Your task to perform on an android device: Show the shopping cart on newegg. Add "amazon basics triple a" to the cart on newegg, then select checkout. Image 0: 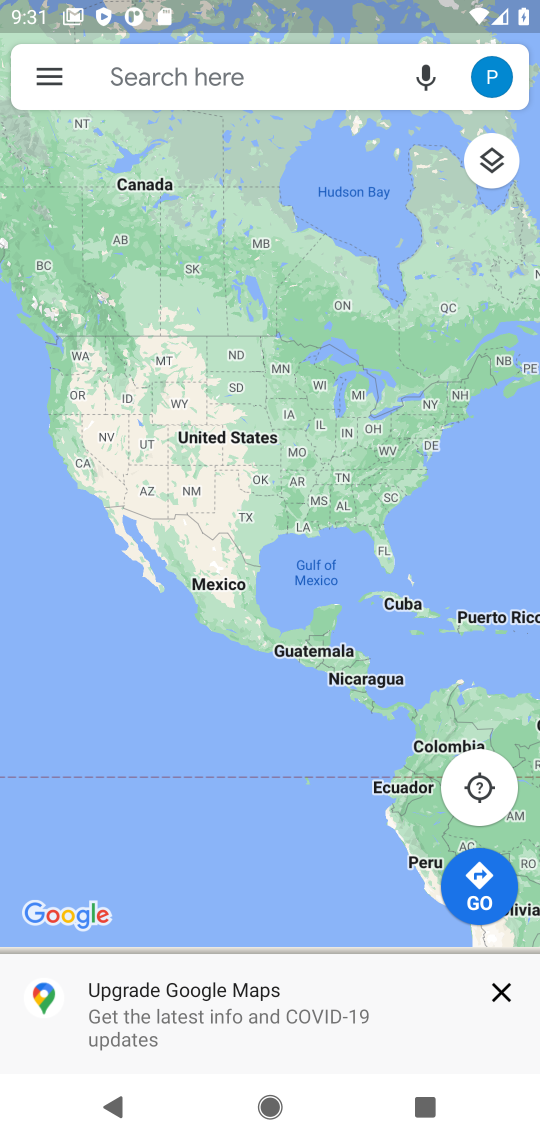
Step 0: press home button
Your task to perform on an android device: Show the shopping cart on newegg. Add "amazon basics triple a" to the cart on newegg, then select checkout. Image 1: 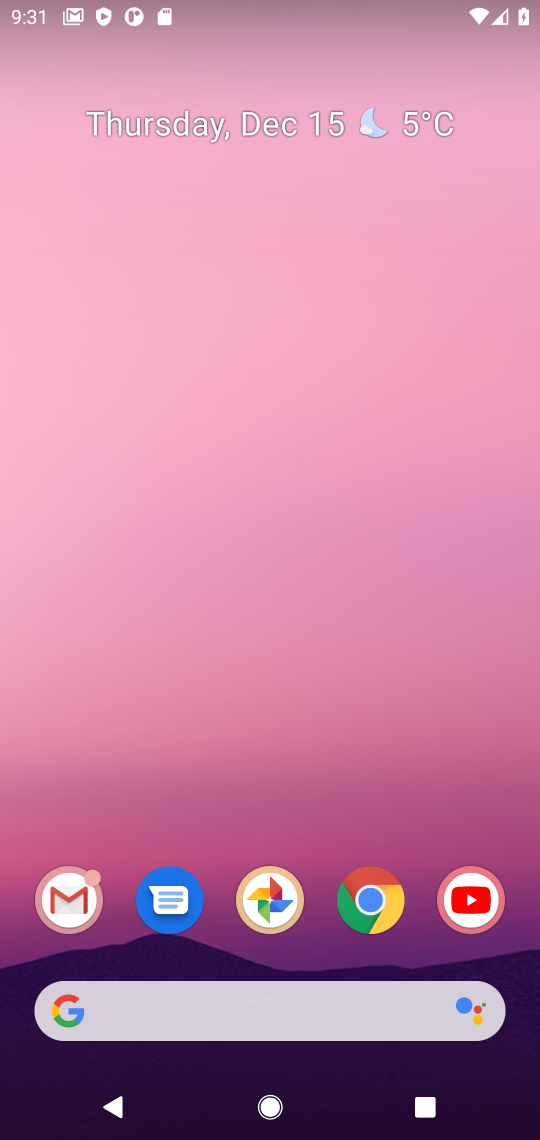
Step 1: click (368, 896)
Your task to perform on an android device: Show the shopping cart on newegg. Add "amazon basics triple a" to the cart on newegg, then select checkout. Image 2: 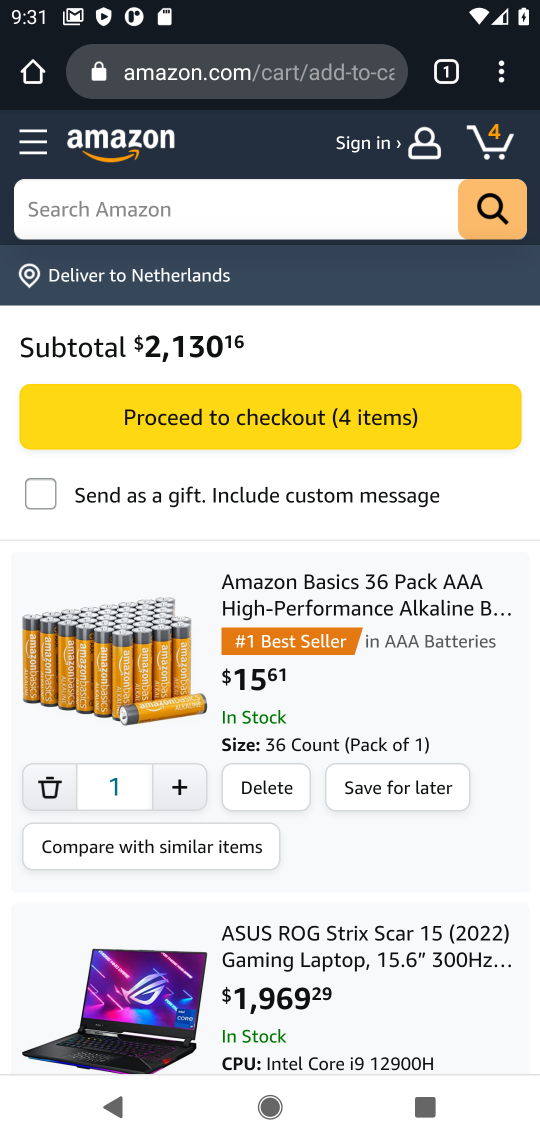
Step 2: click (281, 78)
Your task to perform on an android device: Show the shopping cart on newegg. Add "amazon basics triple a" to the cart on newegg, then select checkout. Image 3: 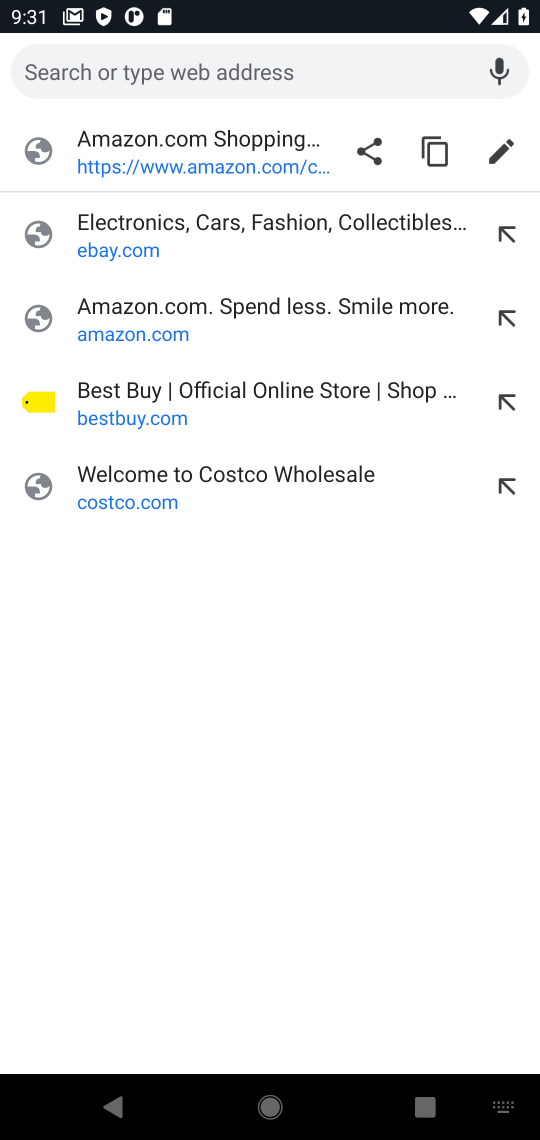
Step 3: press enter
Your task to perform on an android device: Show the shopping cart on newegg. Add "amazon basics triple a" to the cart on newegg, then select checkout. Image 4: 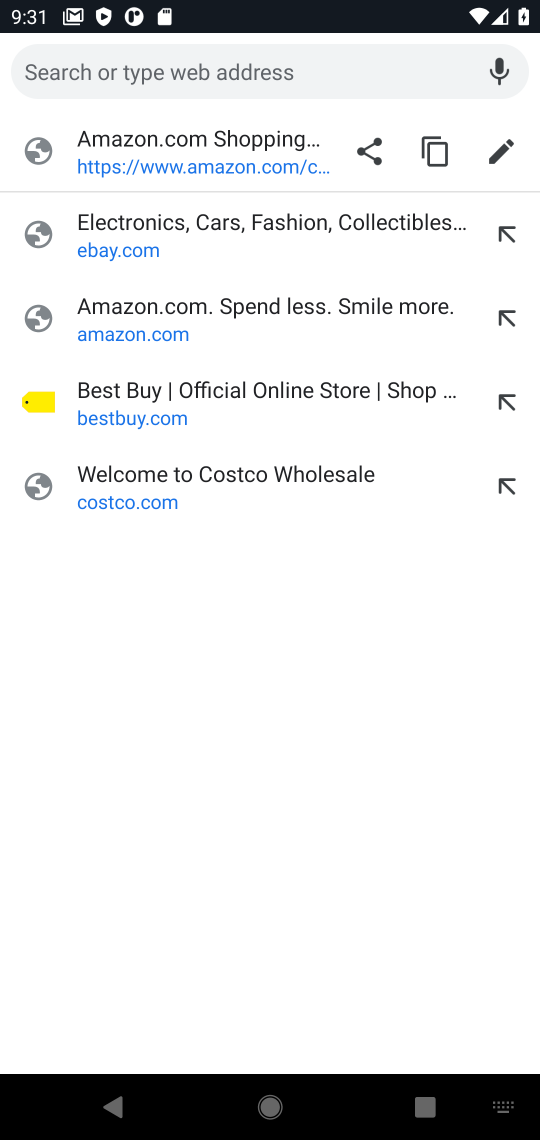
Step 4: type "newegg"
Your task to perform on an android device: Show the shopping cart on newegg. Add "amazon basics triple a" to the cart on newegg, then select checkout. Image 5: 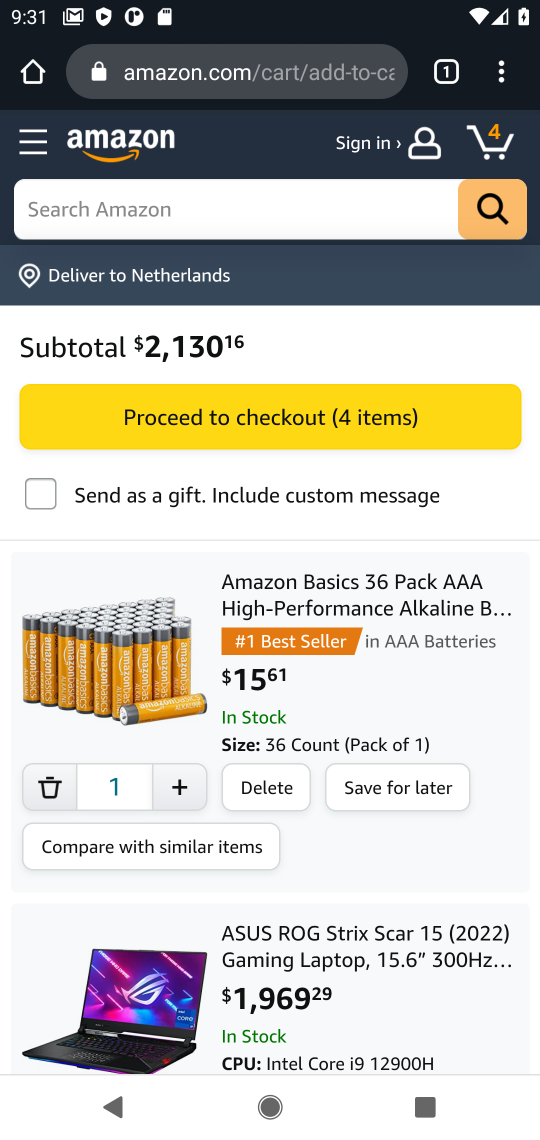
Step 5: click (31, 78)
Your task to perform on an android device: Show the shopping cart on newegg. Add "amazon basics triple a" to the cart on newegg, then select checkout. Image 6: 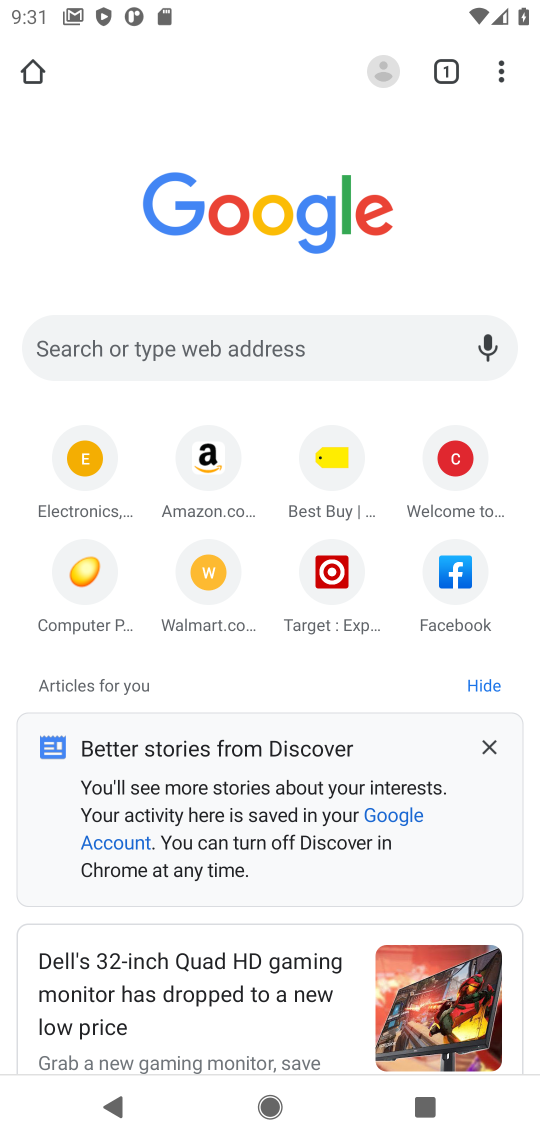
Step 6: click (308, 336)
Your task to perform on an android device: Show the shopping cart on newegg. Add "amazon basics triple a" to the cart on newegg, then select checkout. Image 7: 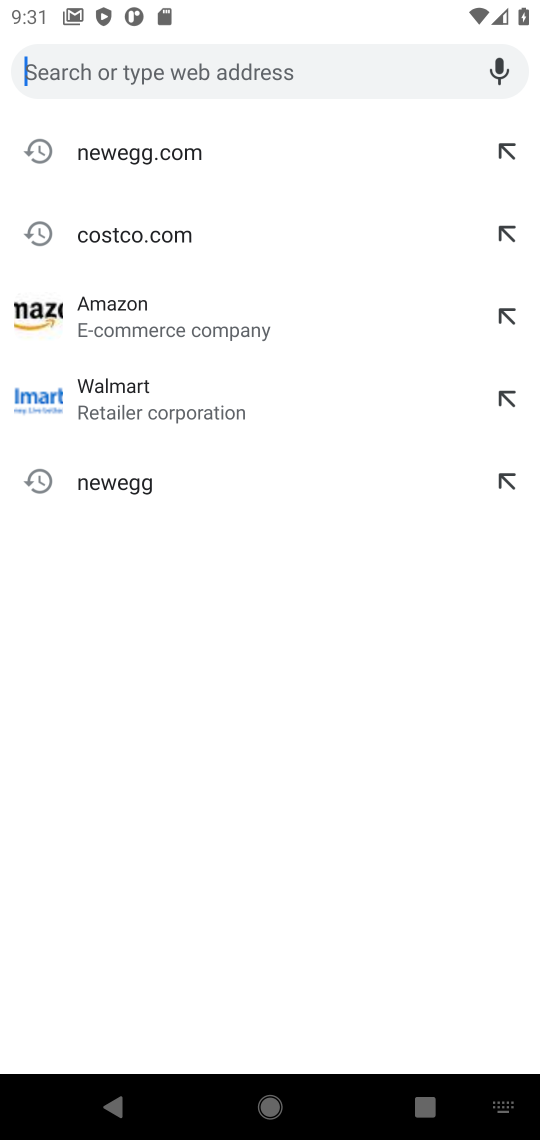
Step 7: press enter
Your task to perform on an android device: Show the shopping cart on newegg. Add "amazon basics triple a" to the cart on newegg, then select checkout. Image 8: 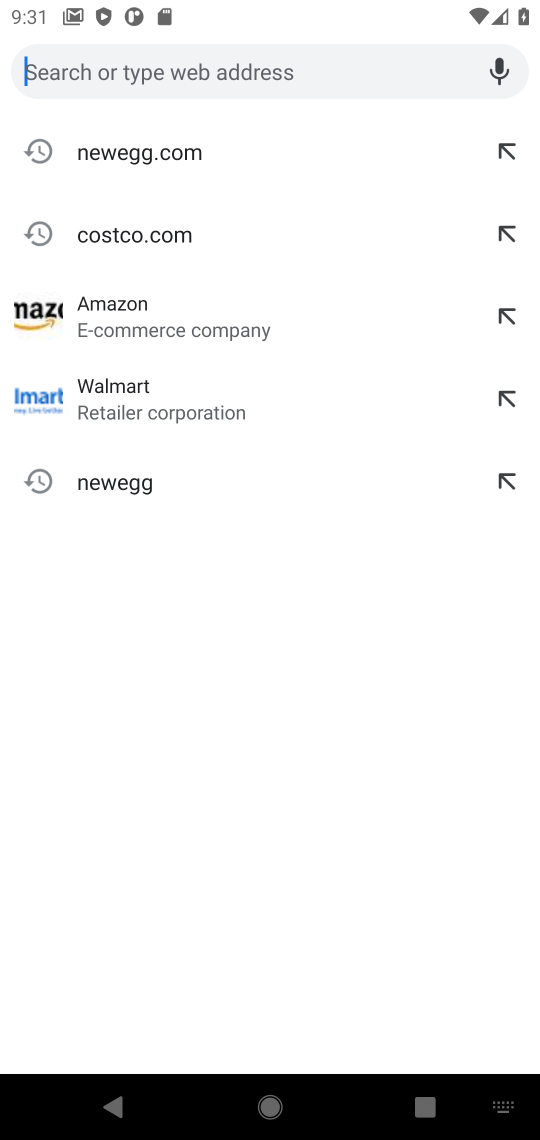
Step 8: type "newegg"
Your task to perform on an android device: Show the shopping cart on newegg. Add "amazon basics triple a" to the cart on newegg, then select checkout. Image 9: 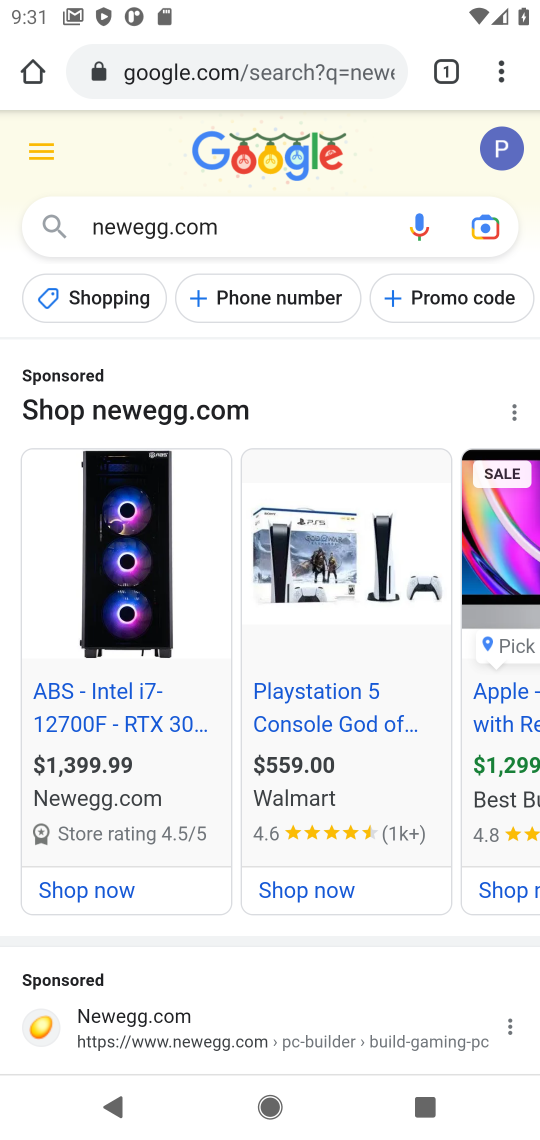
Step 9: drag from (176, 1001) to (70, 318)
Your task to perform on an android device: Show the shopping cart on newegg. Add "amazon basics triple a" to the cart on newegg, then select checkout. Image 10: 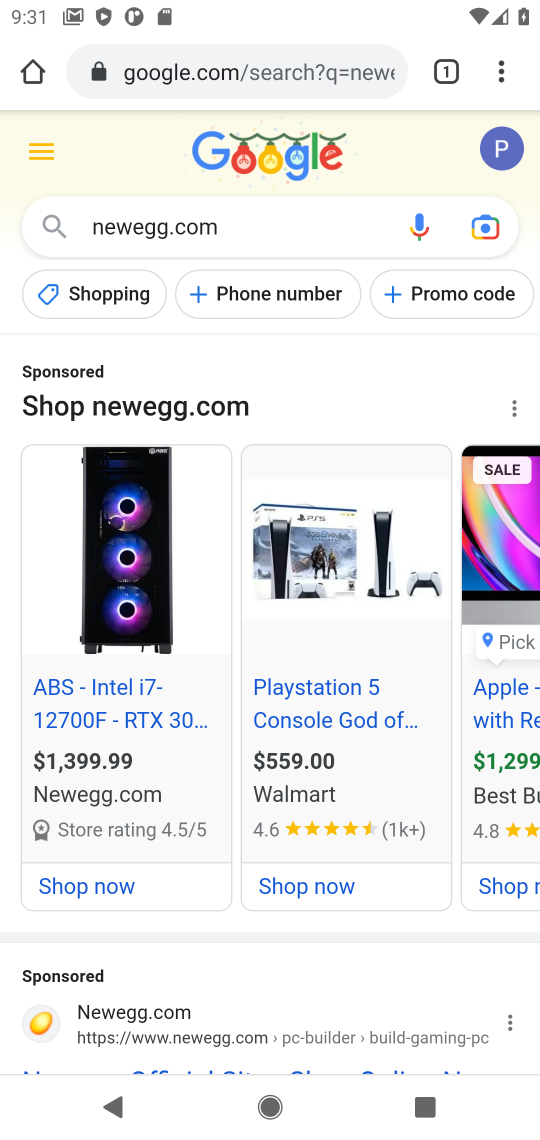
Step 10: drag from (223, 956) to (180, 288)
Your task to perform on an android device: Show the shopping cart on newegg. Add "amazon basics triple a" to the cart on newegg, then select checkout. Image 11: 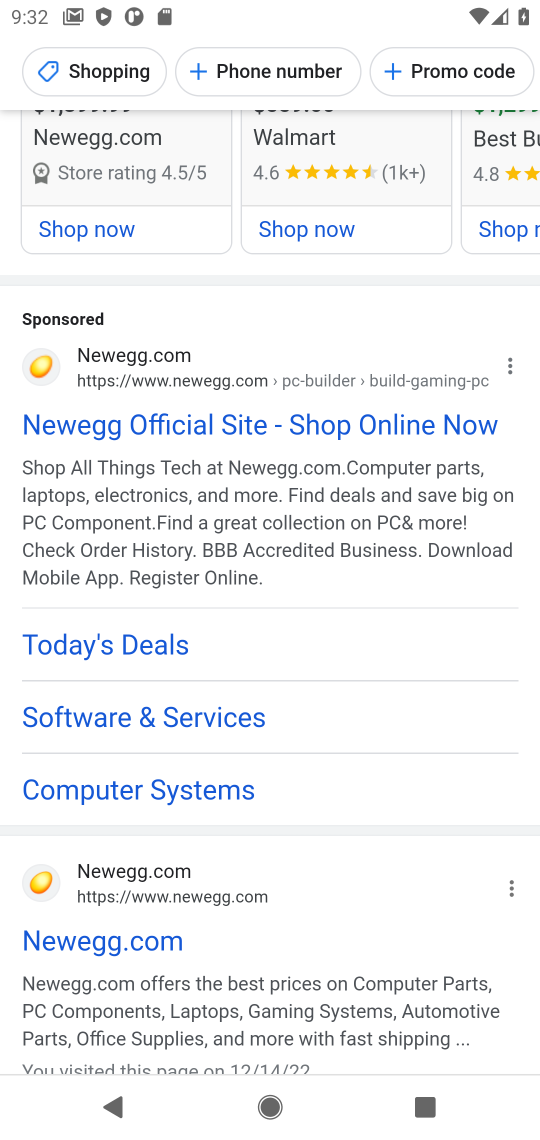
Step 11: click (159, 869)
Your task to perform on an android device: Show the shopping cart on newegg. Add "amazon basics triple a" to the cart on newegg, then select checkout. Image 12: 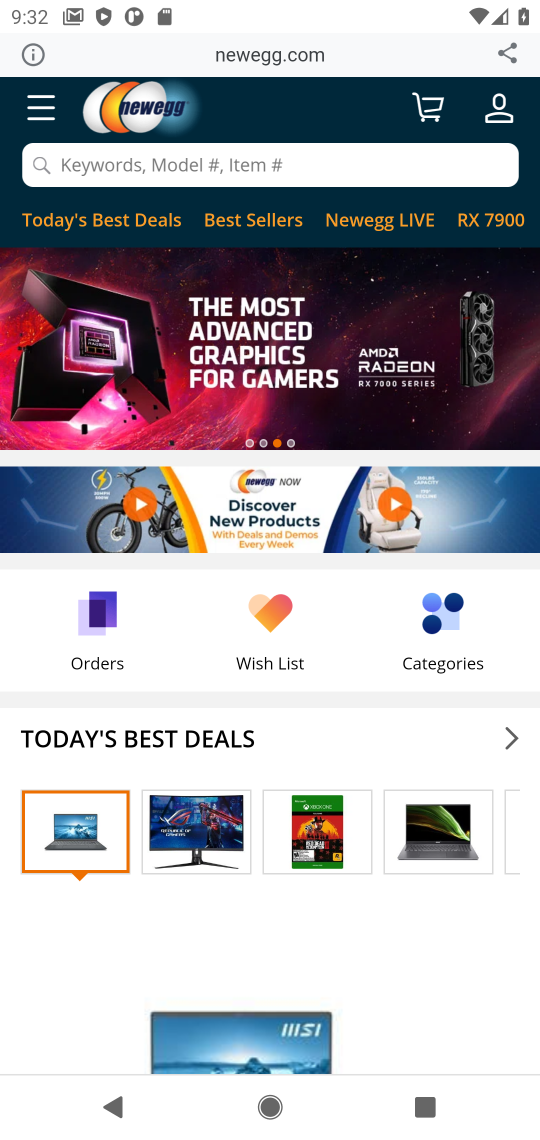
Step 12: click (433, 117)
Your task to perform on an android device: Show the shopping cart on newegg. Add "amazon basics triple a" to the cart on newegg, then select checkout. Image 13: 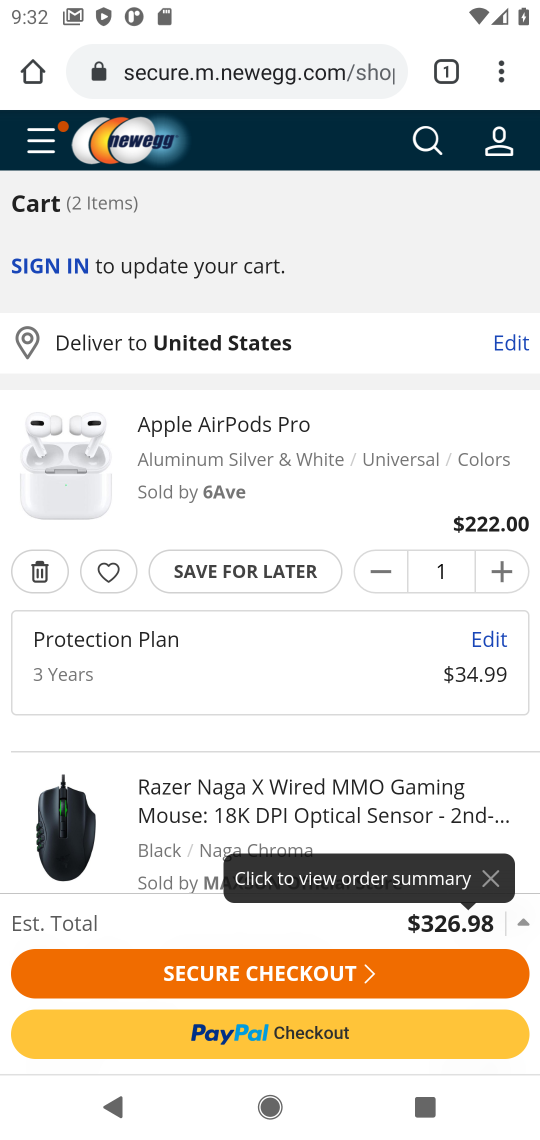
Step 13: click (425, 142)
Your task to perform on an android device: Show the shopping cart on newegg. Add "amazon basics triple a" to the cart on newegg, then select checkout. Image 14: 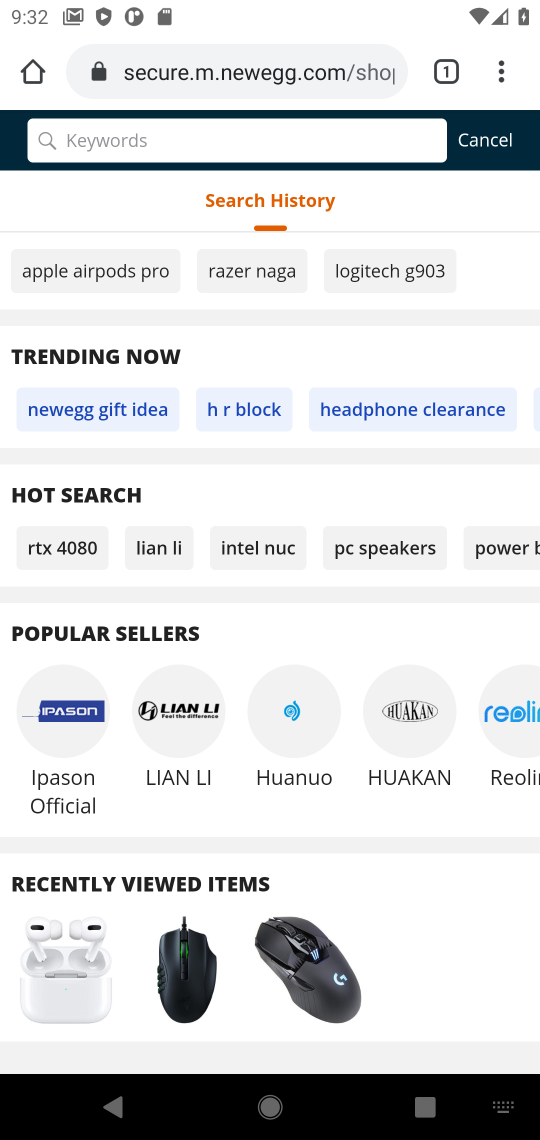
Step 14: press enter
Your task to perform on an android device: Show the shopping cart on newegg. Add "amazon basics triple a" to the cart on newegg, then select checkout. Image 15: 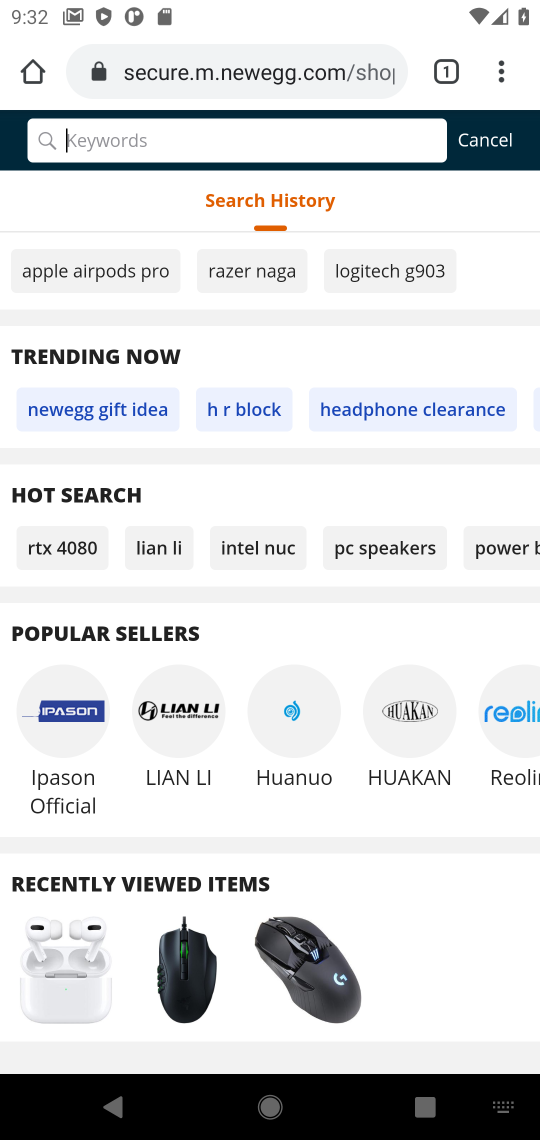
Step 15: type "amazon basics triple a"
Your task to perform on an android device: Show the shopping cart on newegg. Add "amazon basics triple a" to the cart on newegg, then select checkout. Image 16: 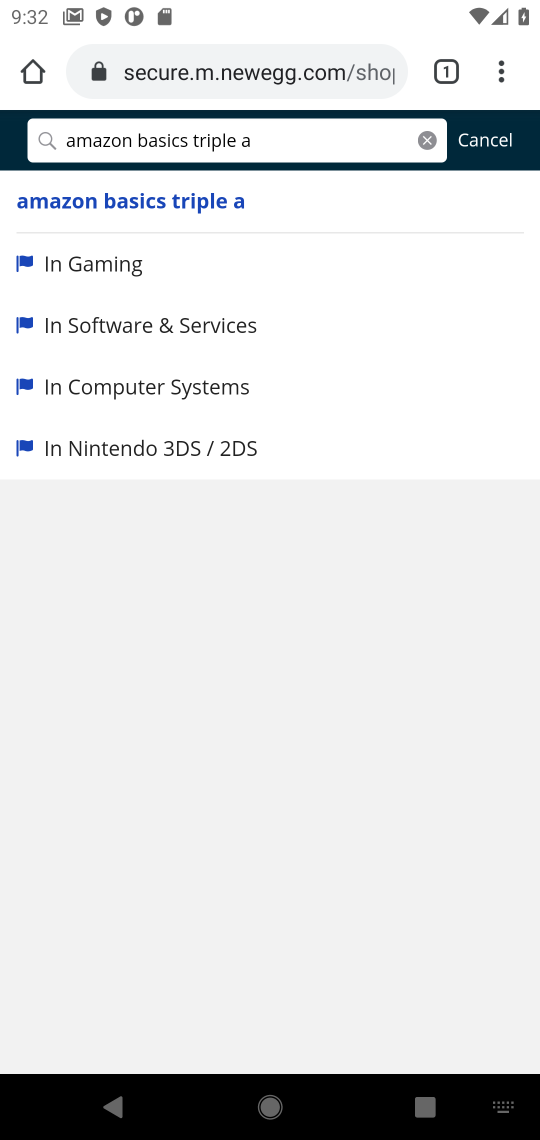
Step 16: click (172, 199)
Your task to perform on an android device: Show the shopping cart on newegg. Add "amazon basics triple a" to the cart on newegg, then select checkout. Image 17: 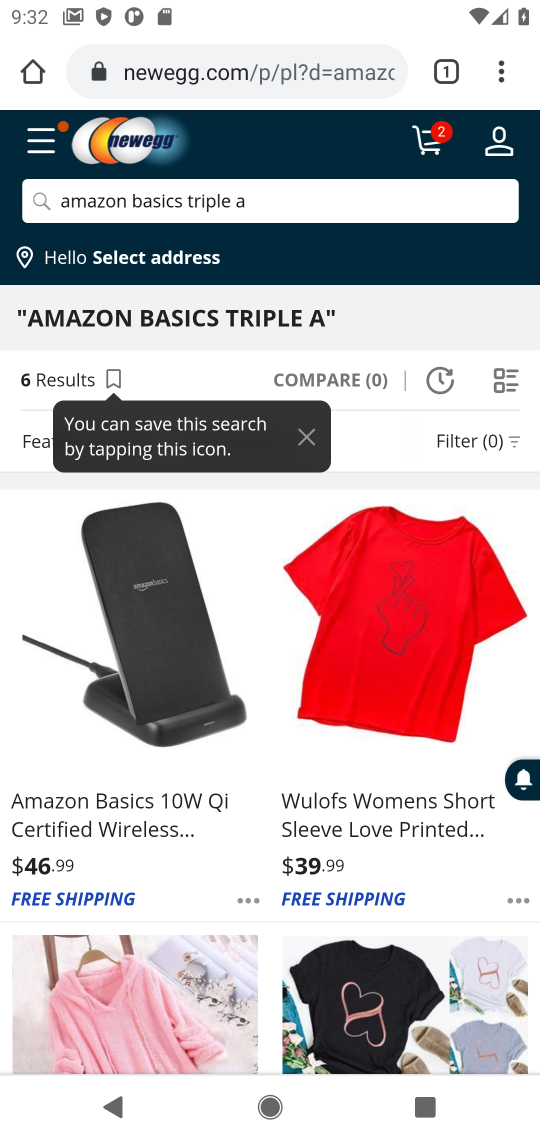
Step 17: drag from (146, 649) to (92, 573)
Your task to perform on an android device: Show the shopping cart on newegg. Add "amazon basics triple a" to the cart on newegg, then select checkout. Image 18: 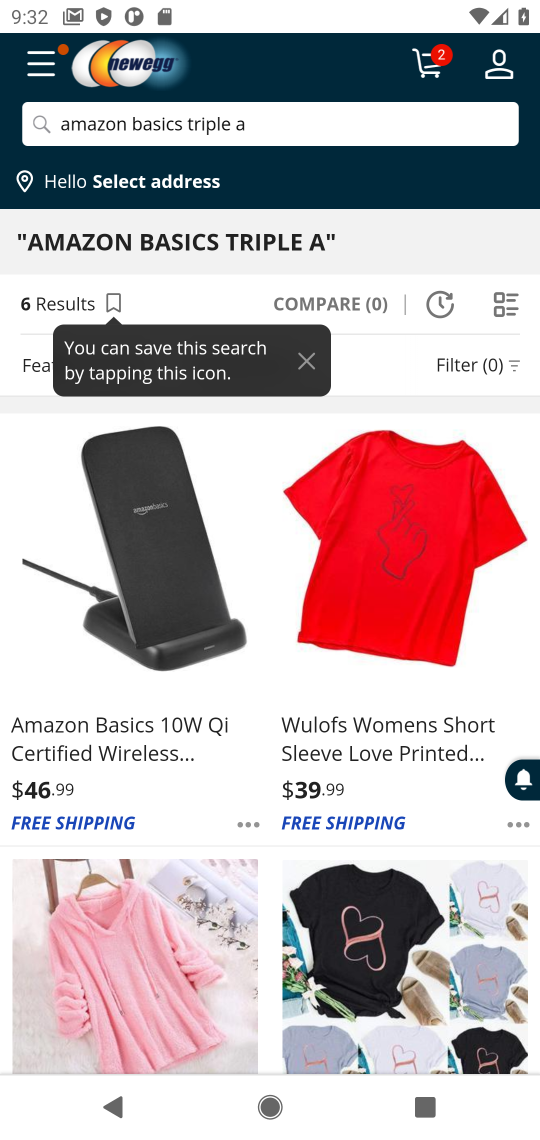
Step 18: click (140, 483)
Your task to perform on an android device: Show the shopping cart on newegg. Add "amazon basics triple a" to the cart on newegg, then select checkout. Image 19: 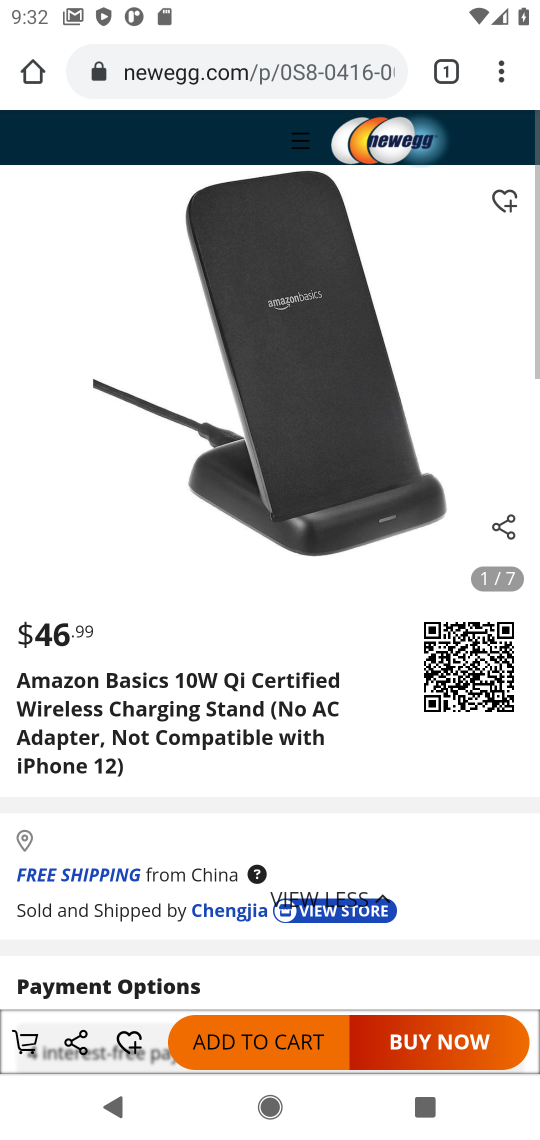
Step 19: click (230, 1046)
Your task to perform on an android device: Show the shopping cart on newegg. Add "amazon basics triple a" to the cart on newegg, then select checkout. Image 20: 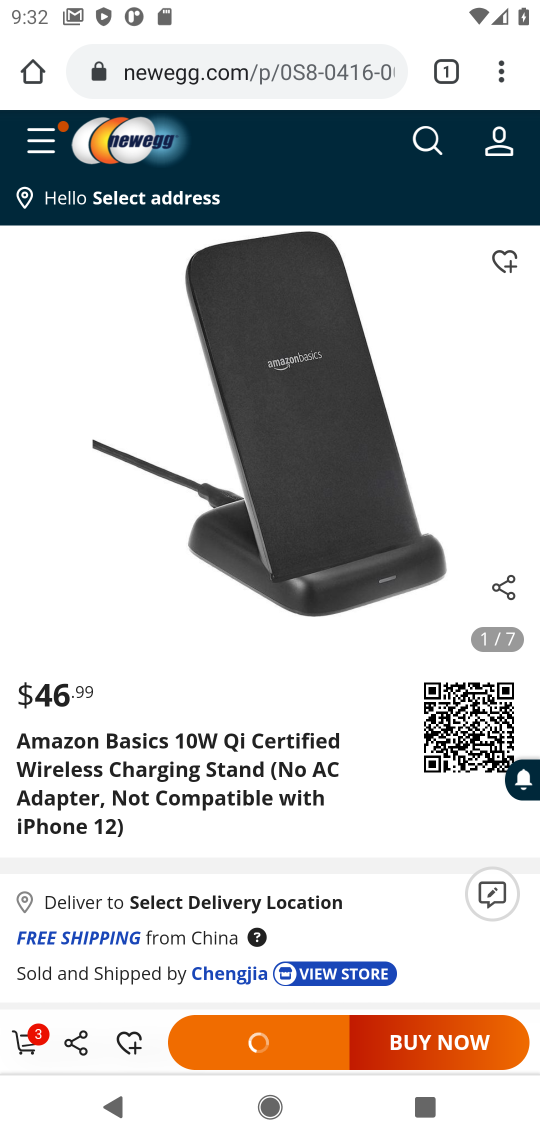
Step 20: click (23, 1045)
Your task to perform on an android device: Show the shopping cart on newegg. Add "amazon basics triple a" to the cart on newegg, then select checkout. Image 21: 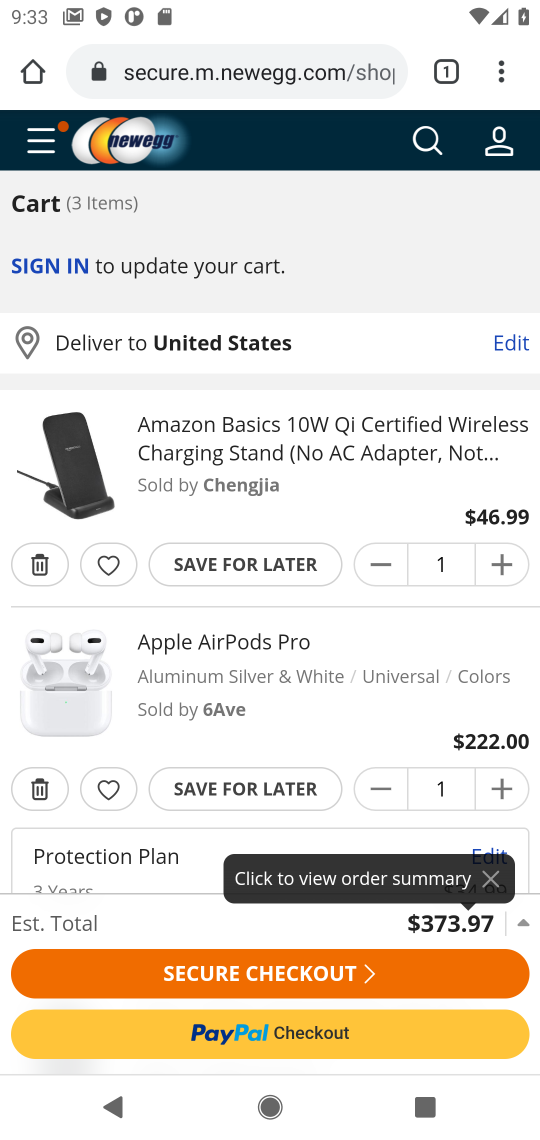
Step 21: click (298, 961)
Your task to perform on an android device: Show the shopping cart on newegg. Add "amazon basics triple a" to the cart on newegg, then select checkout. Image 22: 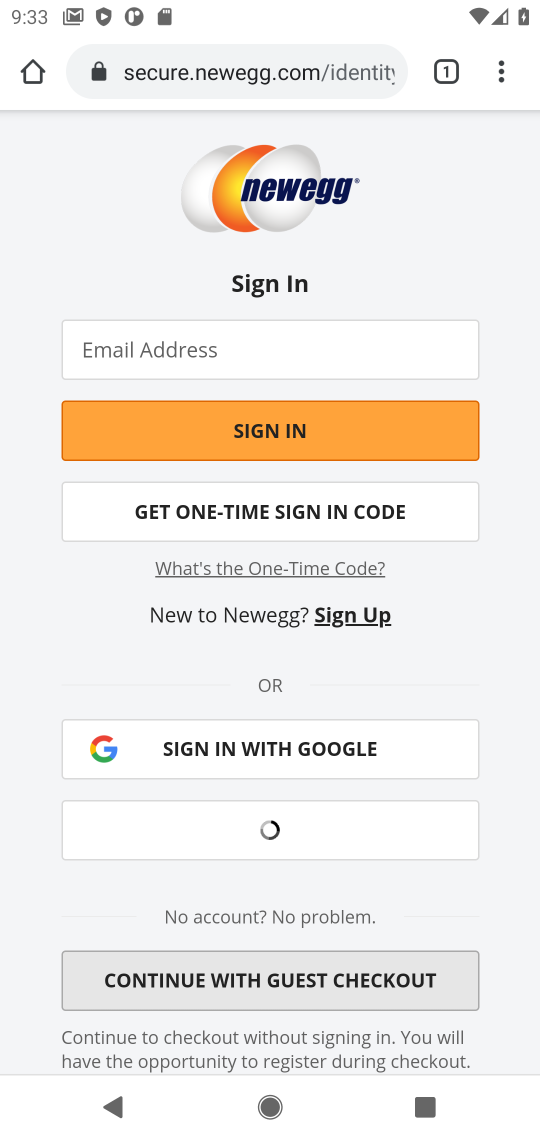
Step 22: task complete